Your task to perform on an android device: change the clock display to digital Image 0: 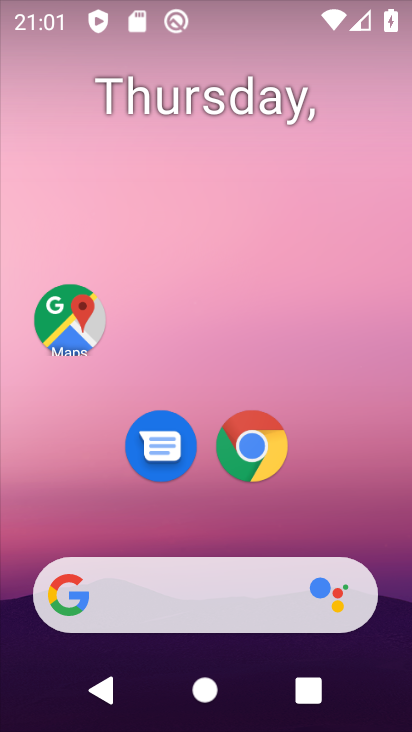
Step 0: press home button
Your task to perform on an android device: change the clock display to digital Image 1: 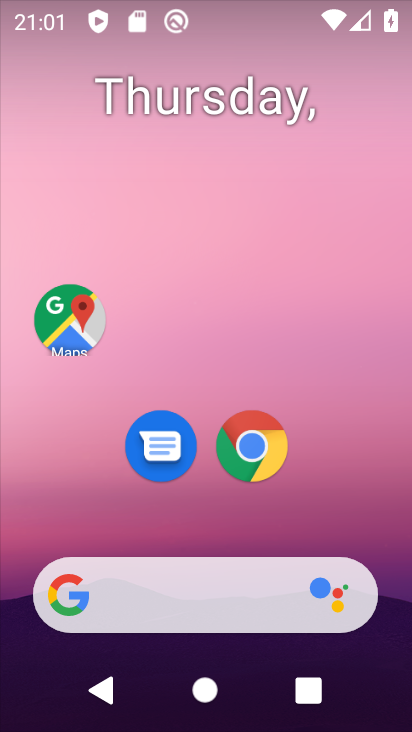
Step 1: drag from (377, 550) to (350, 128)
Your task to perform on an android device: change the clock display to digital Image 2: 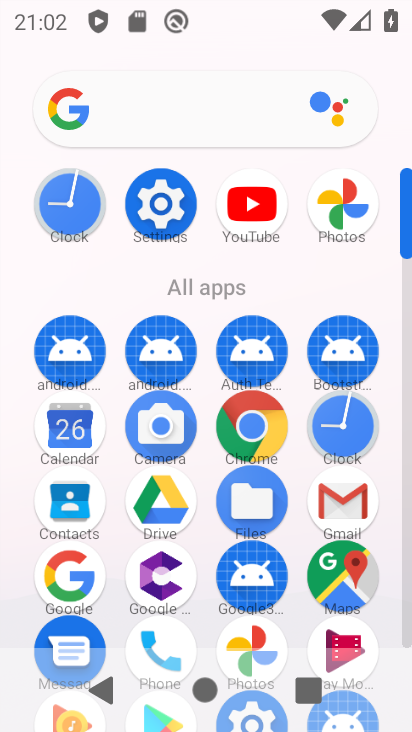
Step 2: click (341, 424)
Your task to perform on an android device: change the clock display to digital Image 3: 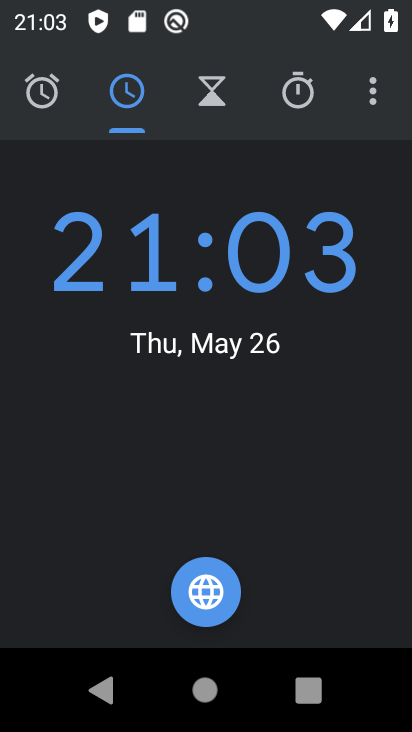
Step 3: click (370, 84)
Your task to perform on an android device: change the clock display to digital Image 4: 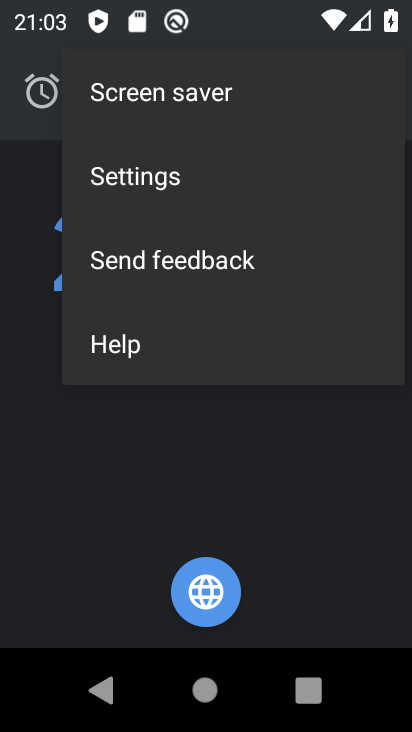
Step 4: click (130, 163)
Your task to perform on an android device: change the clock display to digital Image 5: 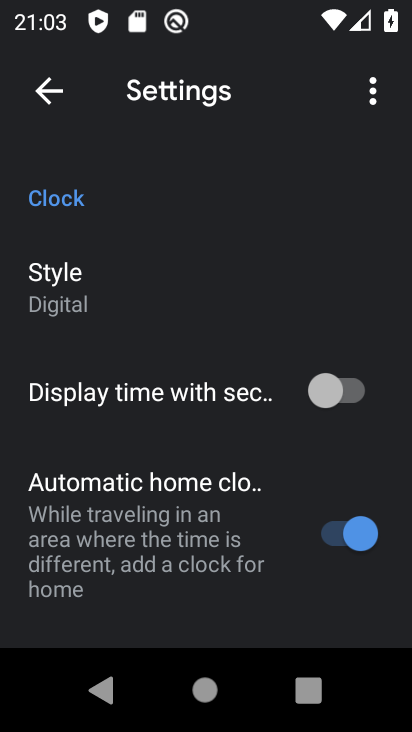
Step 5: task complete